Your task to perform on an android device: move an email to a new category in the gmail app Image 0: 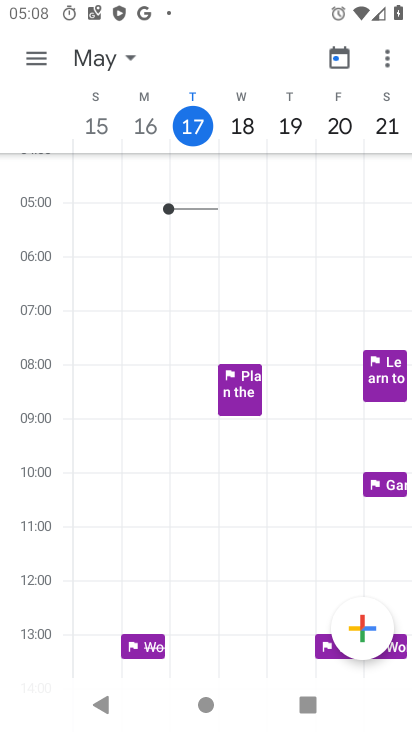
Step 0: press home button
Your task to perform on an android device: move an email to a new category in the gmail app Image 1: 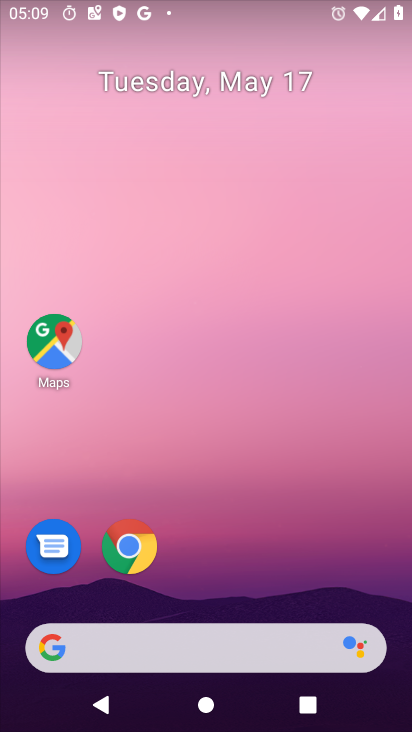
Step 1: click (365, 373)
Your task to perform on an android device: move an email to a new category in the gmail app Image 2: 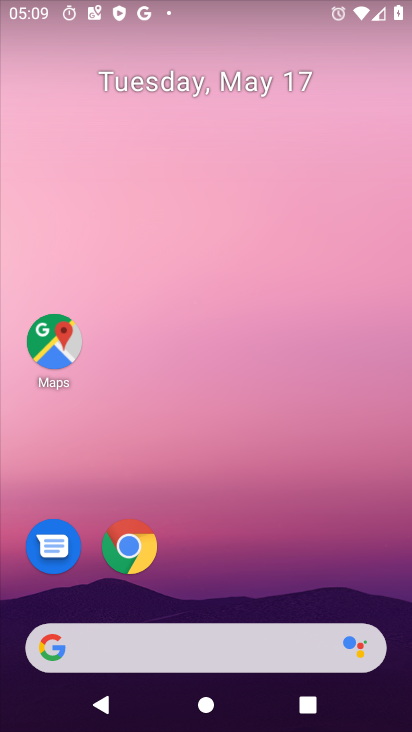
Step 2: drag from (393, 611) to (380, 274)
Your task to perform on an android device: move an email to a new category in the gmail app Image 3: 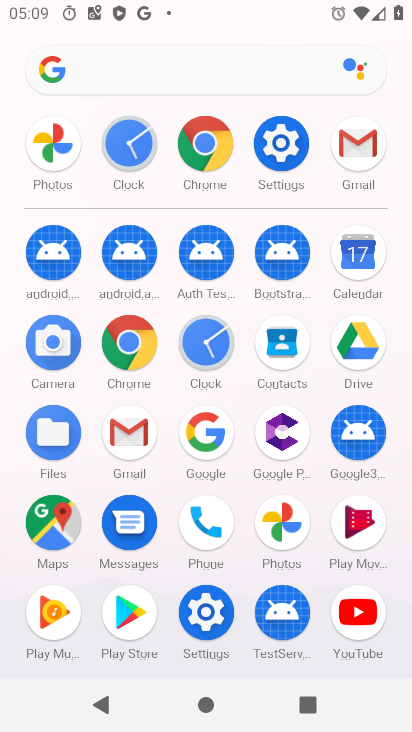
Step 3: click (128, 431)
Your task to perform on an android device: move an email to a new category in the gmail app Image 4: 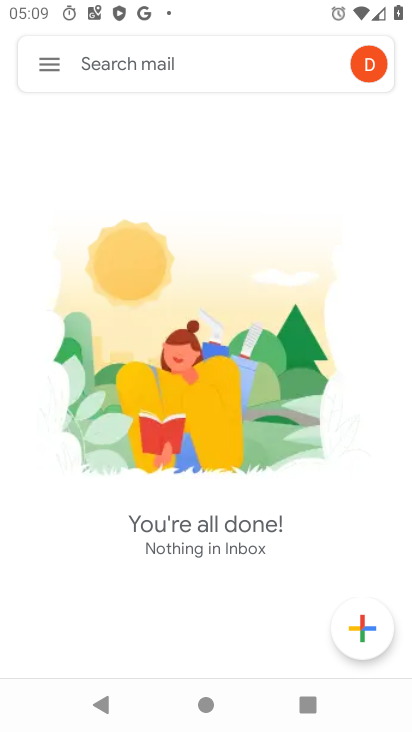
Step 4: click (55, 65)
Your task to perform on an android device: move an email to a new category in the gmail app Image 5: 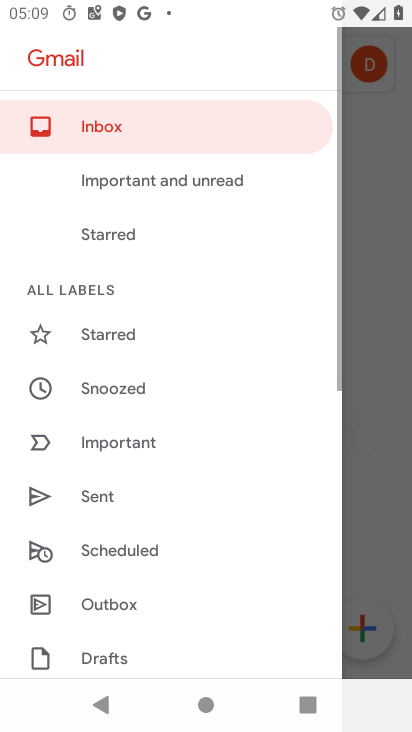
Step 5: click (109, 128)
Your task to perform on an android device: move an email to a new category in the gmail app Image 6: 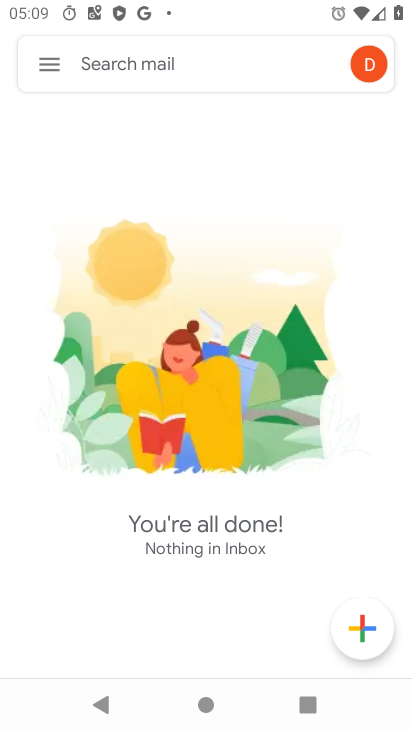
Step 6: task complete